Your task to perform on an android device: Open the map Image 0: 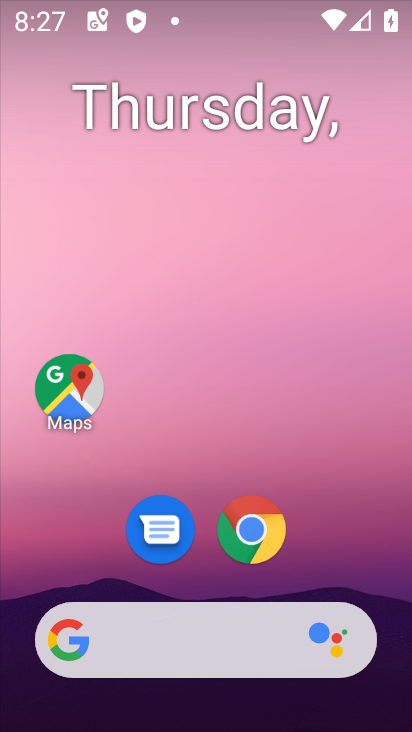
Step 0: drag from (181, 720) to (190, 47)
Your task to perform on an android device: Open the map Image 1: 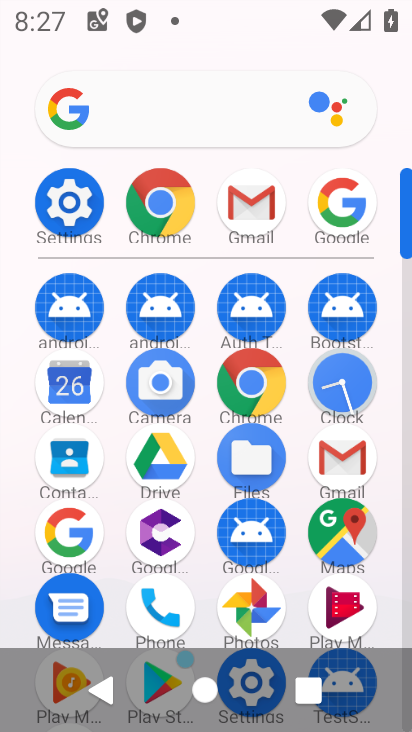
Step 1: click (352, 543)
Your task to perform on an android device: Open the map Image 2: 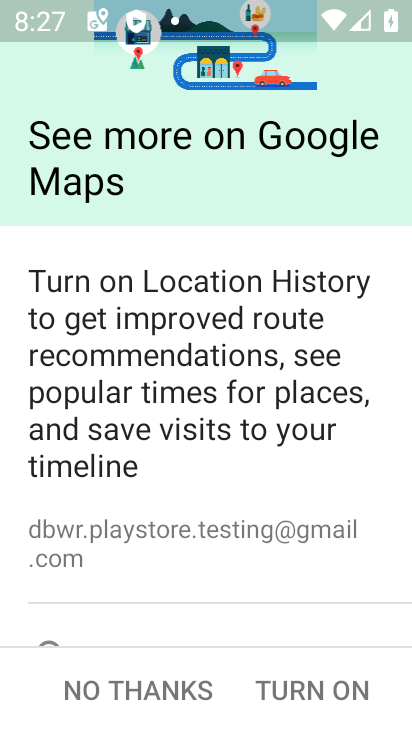
Step 2: click (138, 692)
Your task to perform on an android device: Open the map Image 3: 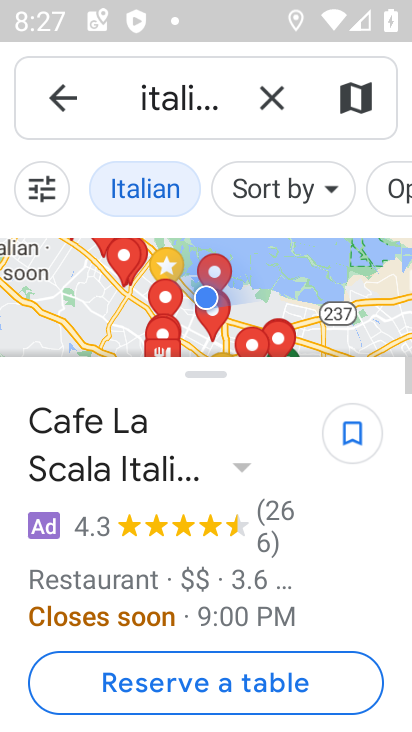
Step 3: task complete